Your task to perform on an android device: Open settings Image 0: 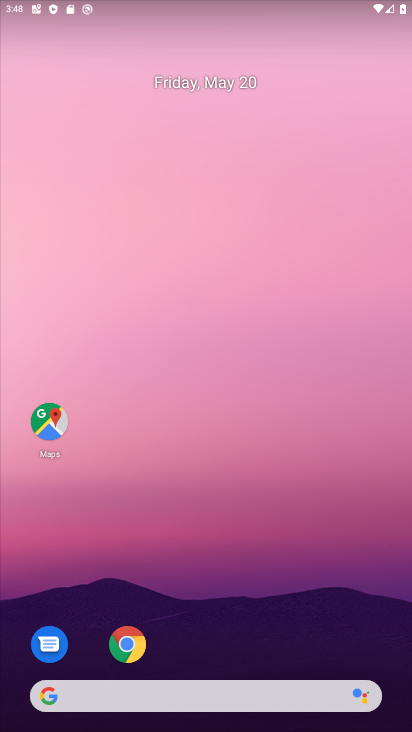
Step 0: drag from (229, 627) to (262, 110)
Your task to perform on an android device: Open settings Image 1: 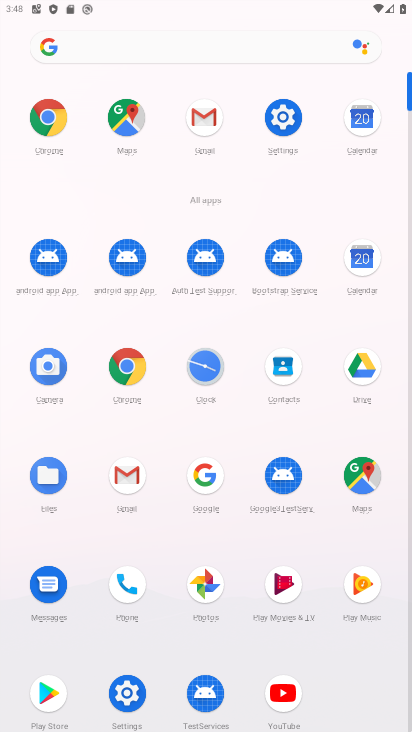
Step 1: click (287, 118)
Your task to perform on an android device: Open settings Image 2: 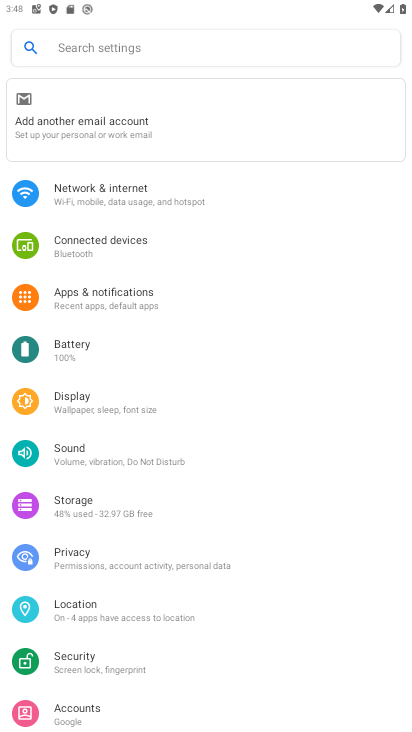
Step 2: task complete